Your task to perform on an android device: See recent photos Image 0: 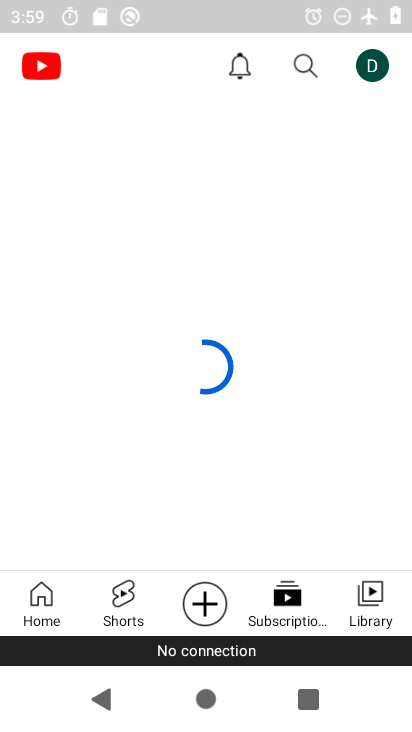
Step 0: press home button
Your task to perform on an android device: See recent photos Image 1: 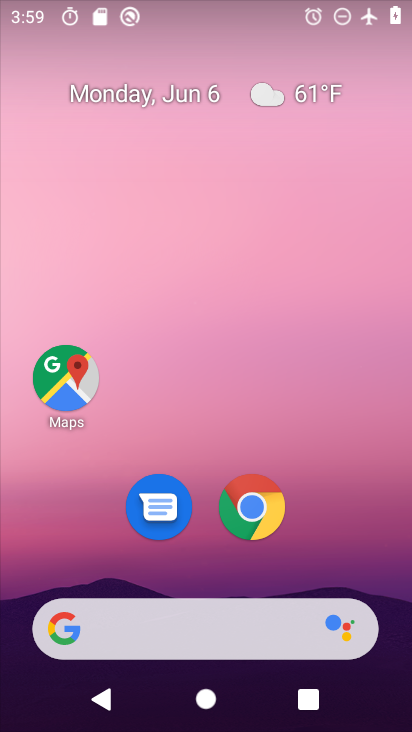
Step 1: drag from (200, 579) to (196, 168)
Your task to perform on an android device: See recent photos Image 2: 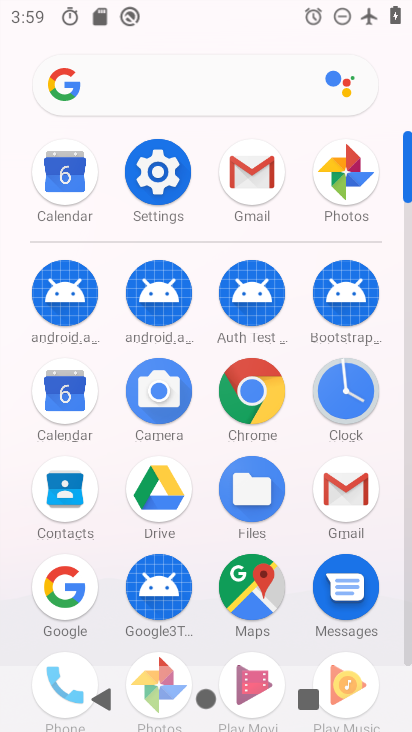
Step 2: click (338, 197)
Your task to perform on an android device: See recent photos Image 3: 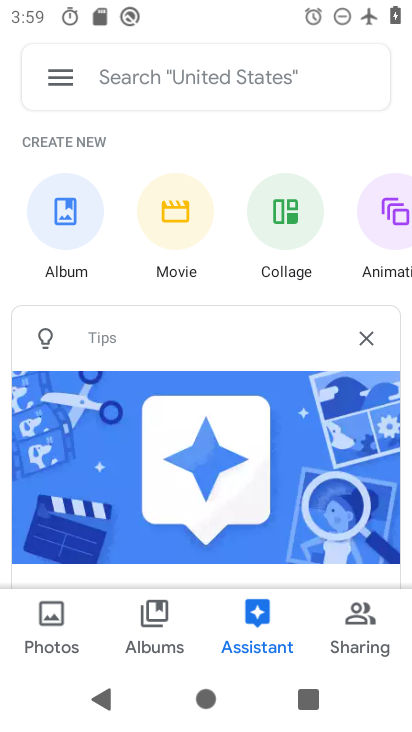
Step 3: click (46, 620)
Your task to perform on an android device: See recent photos Image 4: 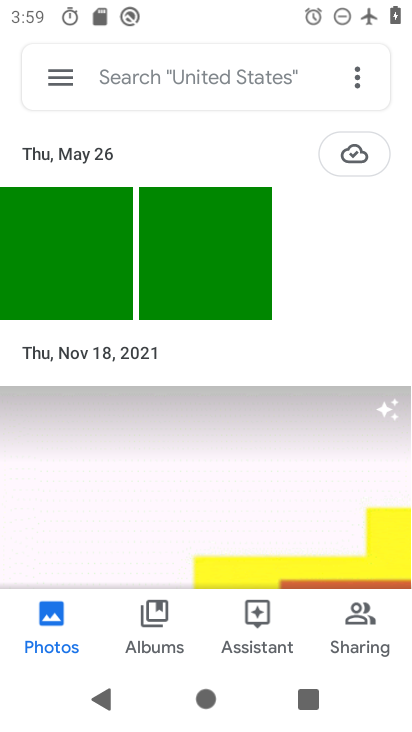
Step 4: task complete